Your task to perform on an android device: set an alarm Image 0: 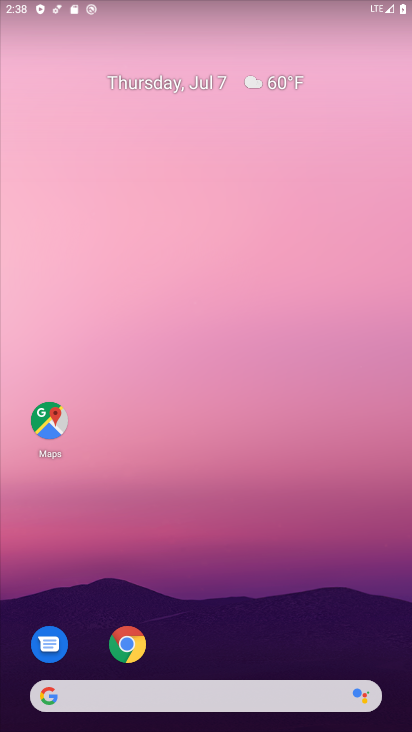
Step 0: drag from (220, 685) to (257, 176)
Your task to perform on an android device: set an alarm Image 1: 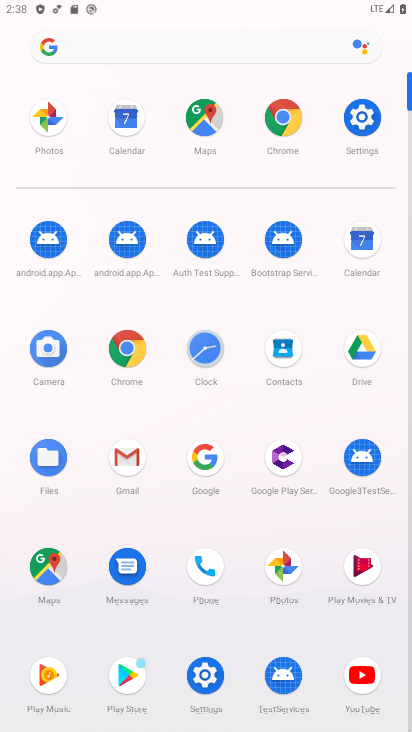
Step 1: click (205, 360)
Your task to perform on an android device: set an alarm Image 2: 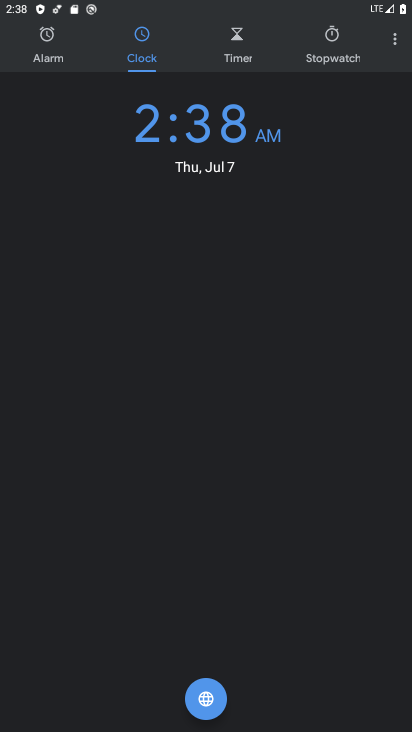
Step 2: click (59, 40)
Your task to perform on an android device: set an alarm Image 3: 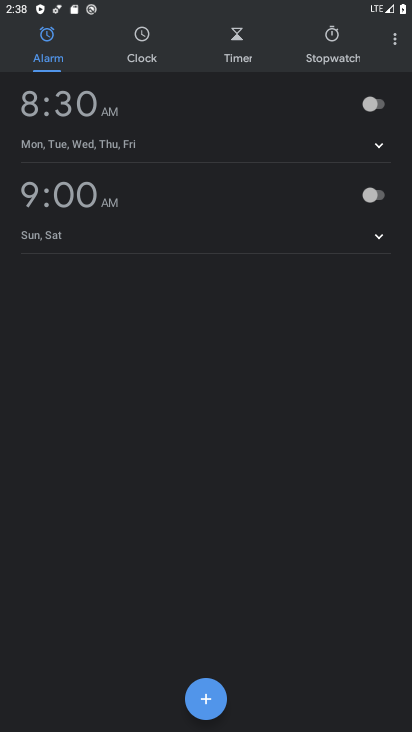
Step 3: click (219, 678)
Your task to perform on an android device: set an alarm Image 4: 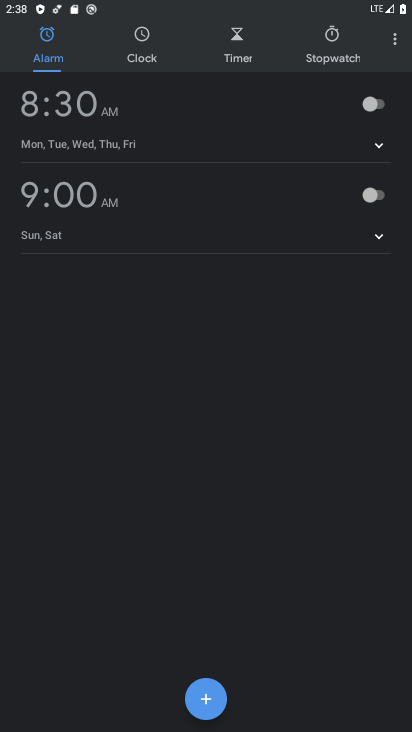
Step 4: click (220, 701)
Your task to perform on an android device: set an alarm Image 5: 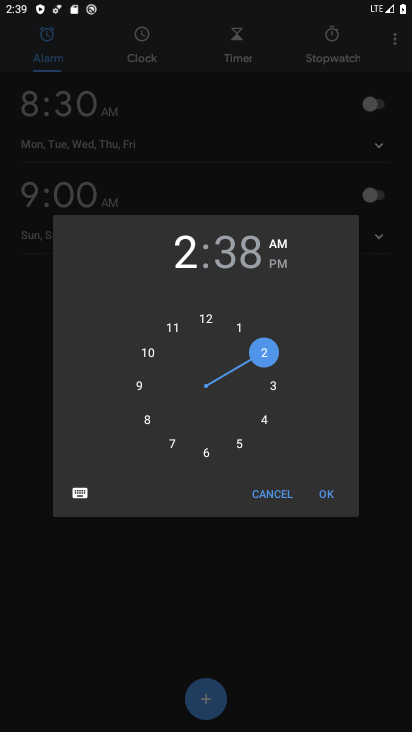
Step 5: click (327, 488)
Your task to perform on an android device: set an alarm Image 6: 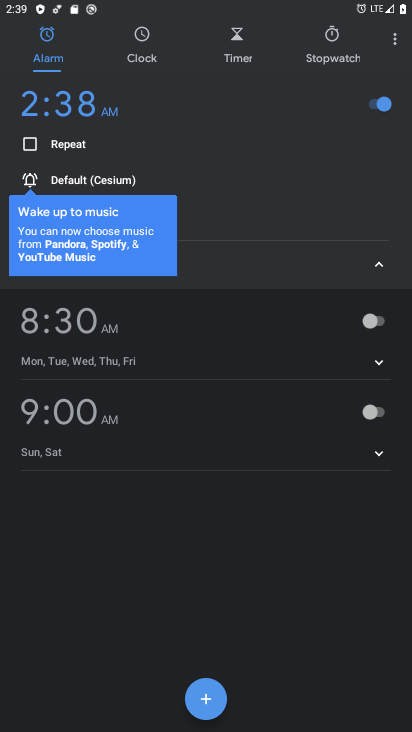
Step 6: task complete